Your task to perform on an android device: turn pop-ups on in chrome Image 0: 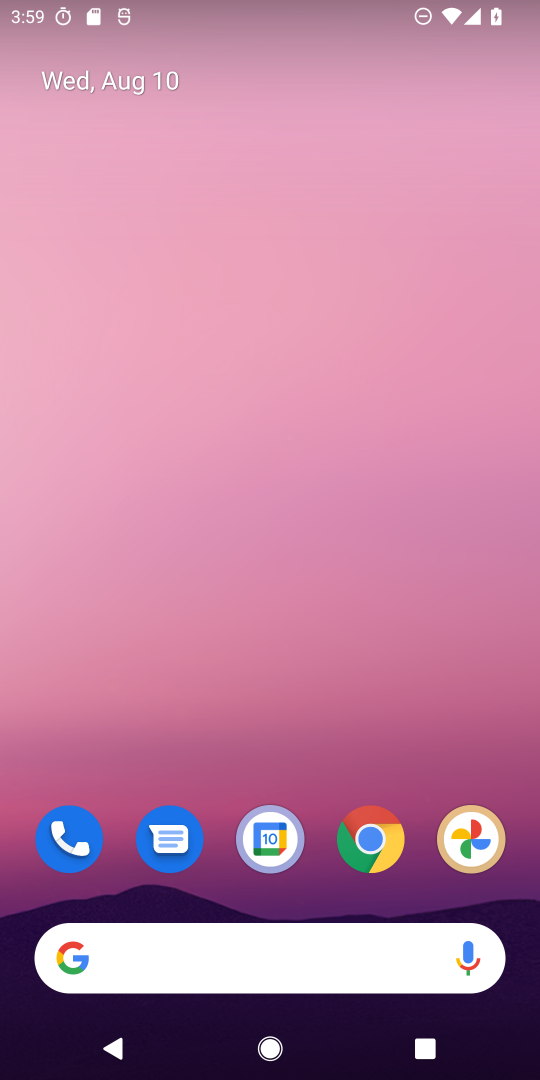
Step 0: click (379, 833)
Your task to perform on an android device: turn pop-ups on in chrome Image 1: 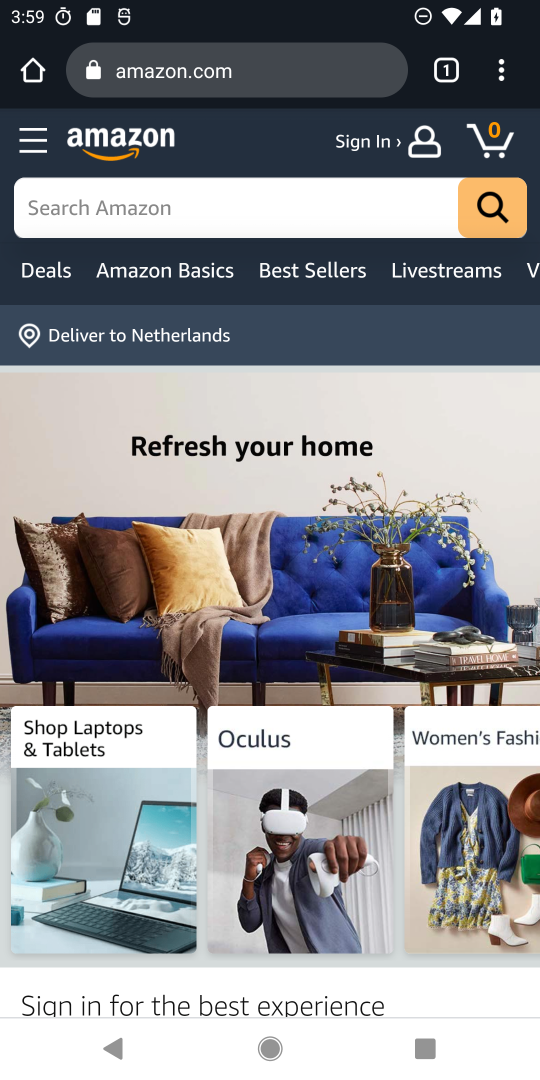
Step 1: click (511, 78)
Your task to perform on an android device: turn pop-ups on in chrome Image 2: 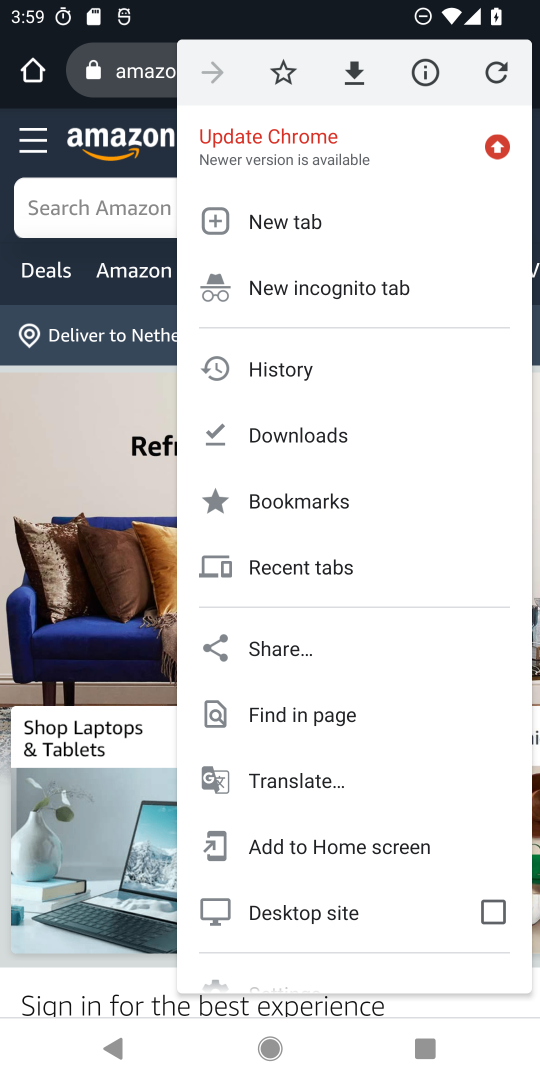
Step 2: drag from (473, 722) to (475, 347)
Your task to perform on an android device: turn pop-ups on in chrome Image 3: 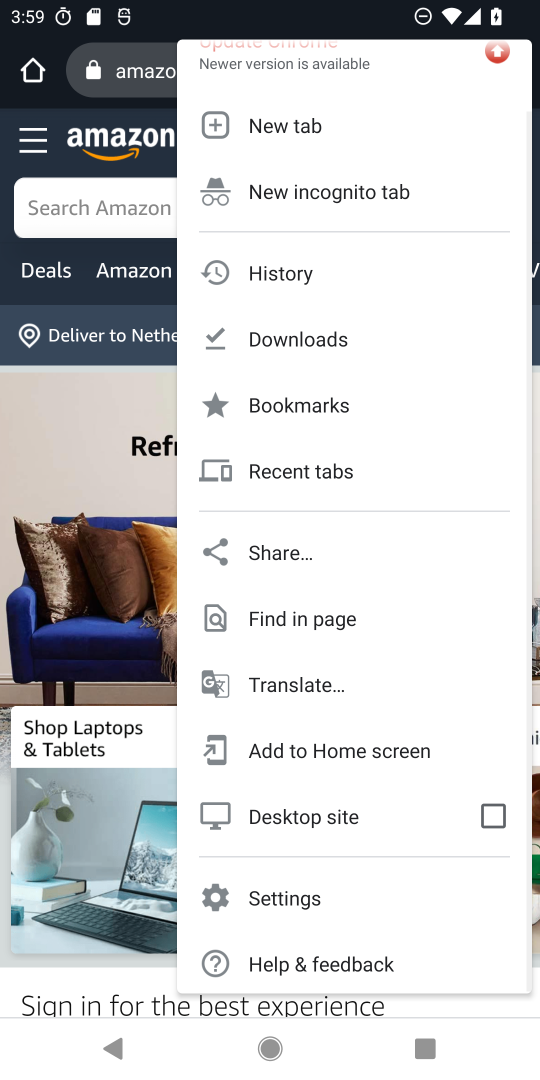
Step 3: click (261, 904)
Your task to perform on an android device: turn pop-ups on in chrome Image 4: 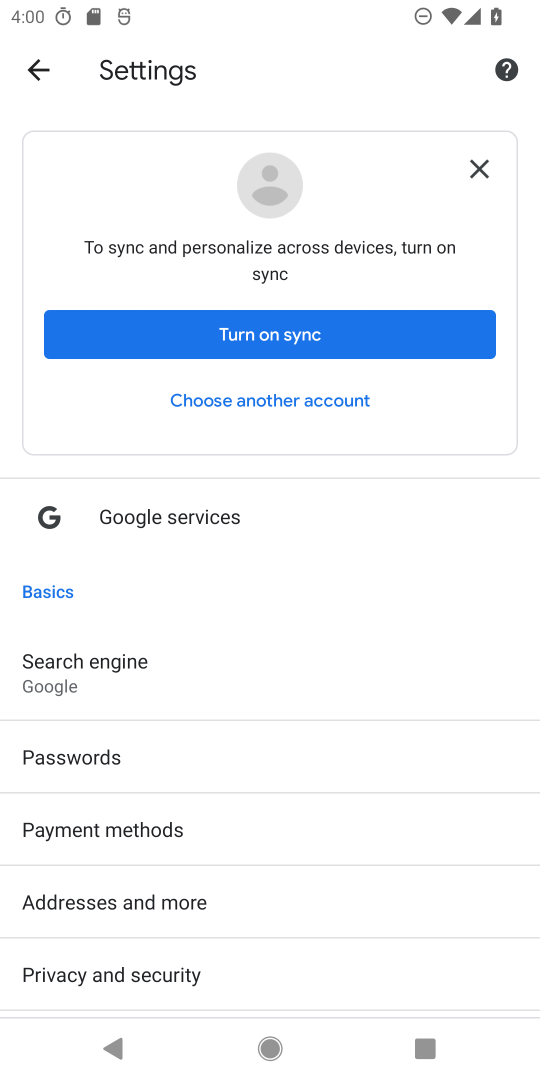
Step 4: drag from (368, 955) to (388, 575)
Your task to perform on an android device: turn pop-ups on in chrome Image 5: 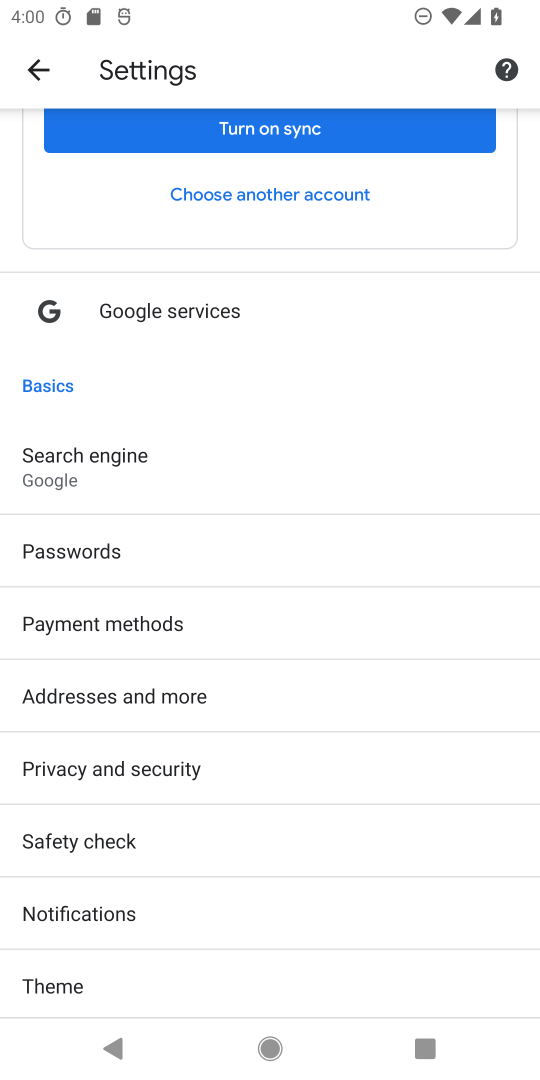
Step 5: drag from (285, 960) to (332, 795)
Your task to perform on an android device: turn pop-ups on in chrome Image 6: 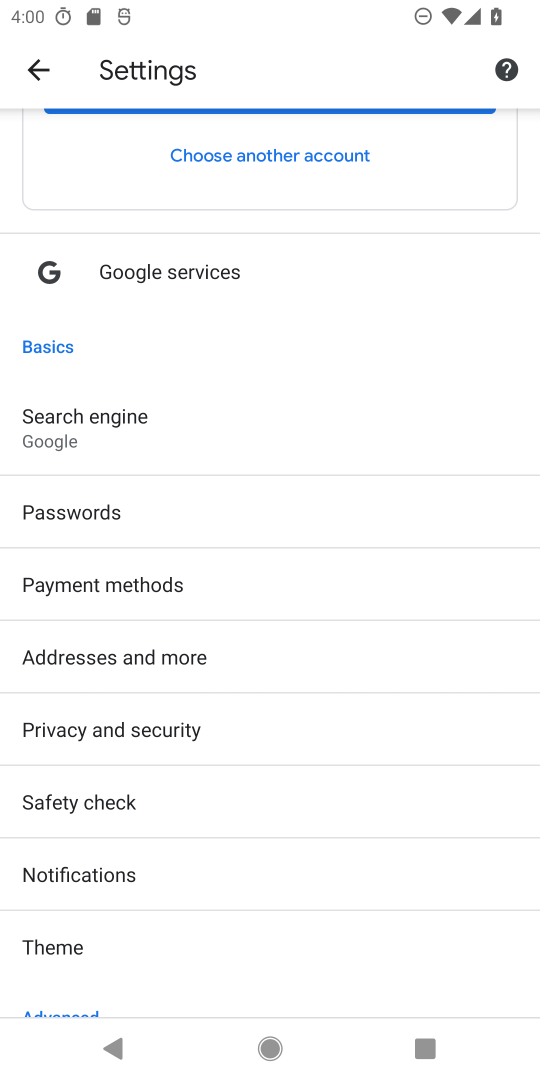
Step 6: drag from (305, 978) to (318, 586)
Your task to perform on an android device: turn pop-ups on in chrome Image 7: 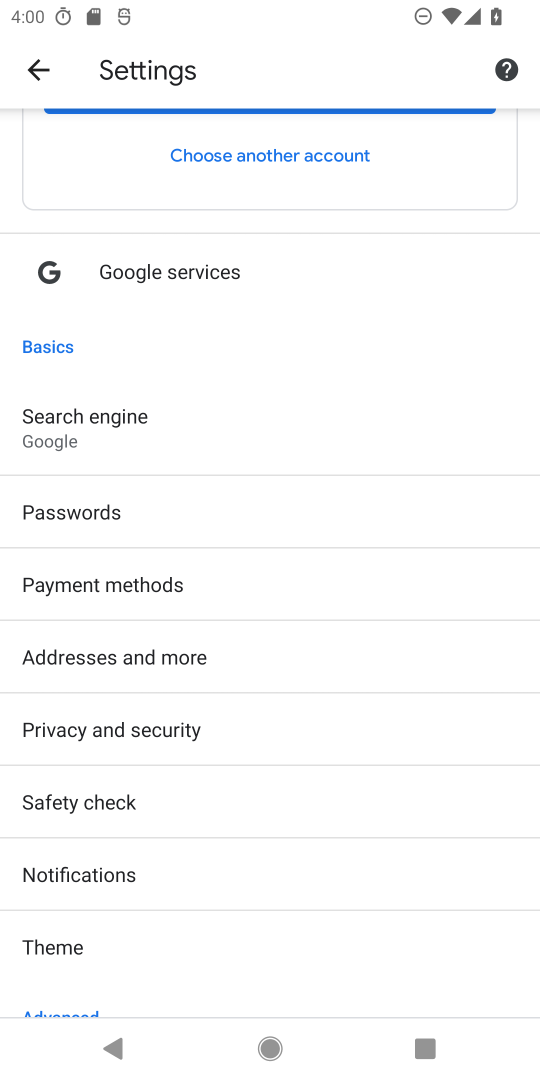
Step 7: drag from (463, 995) to (383, 605)
Your task to perform on an android device: turn pop-ups on in chrome Image 8: 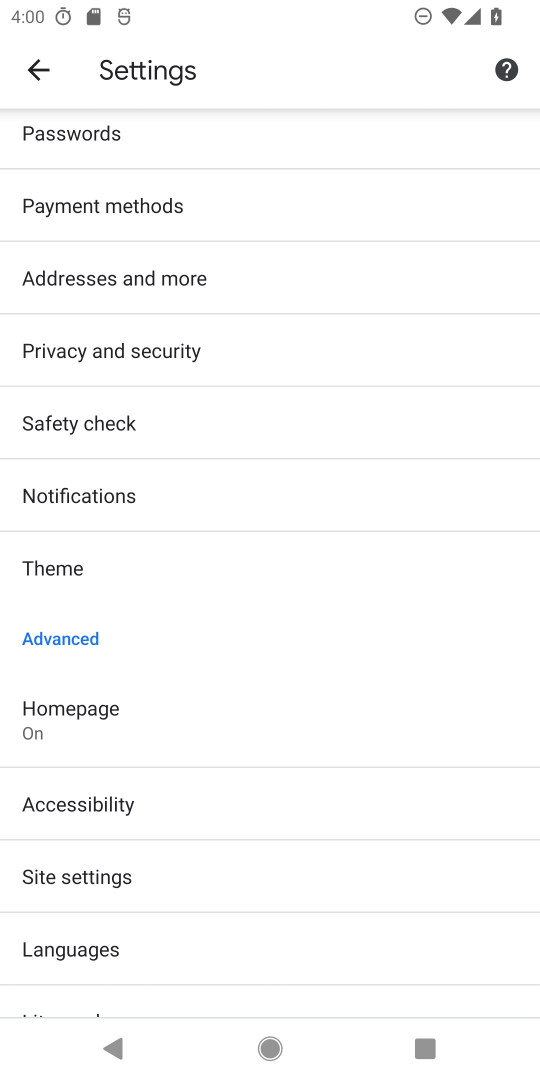
Step 8: click (47, 875)
Your task to perform on an android device: turn pop-ups on in chrome Image 9: 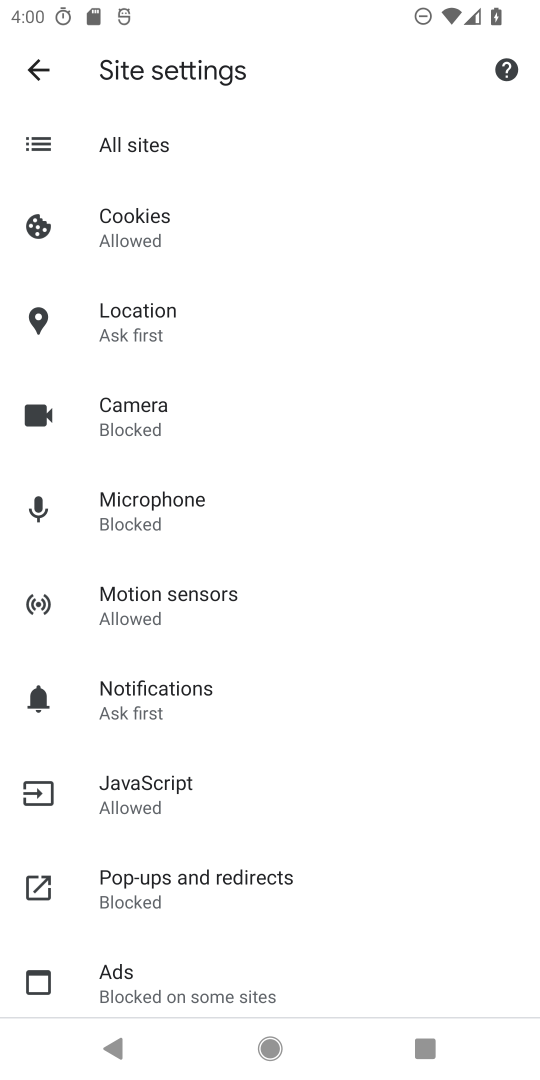
Step 9: click (187, 890)
Your task to perform on an android device: turn pop-ups on in chrome Image 10: 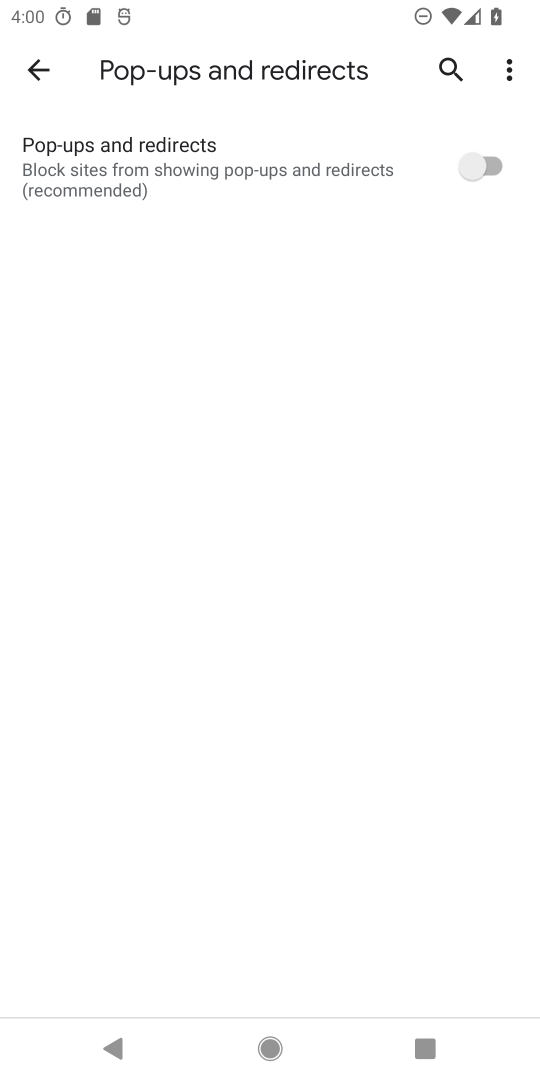
Step 10: click (470, 164)
Your task to perform on an android device: turn pop-ups on in chrome Image 11: 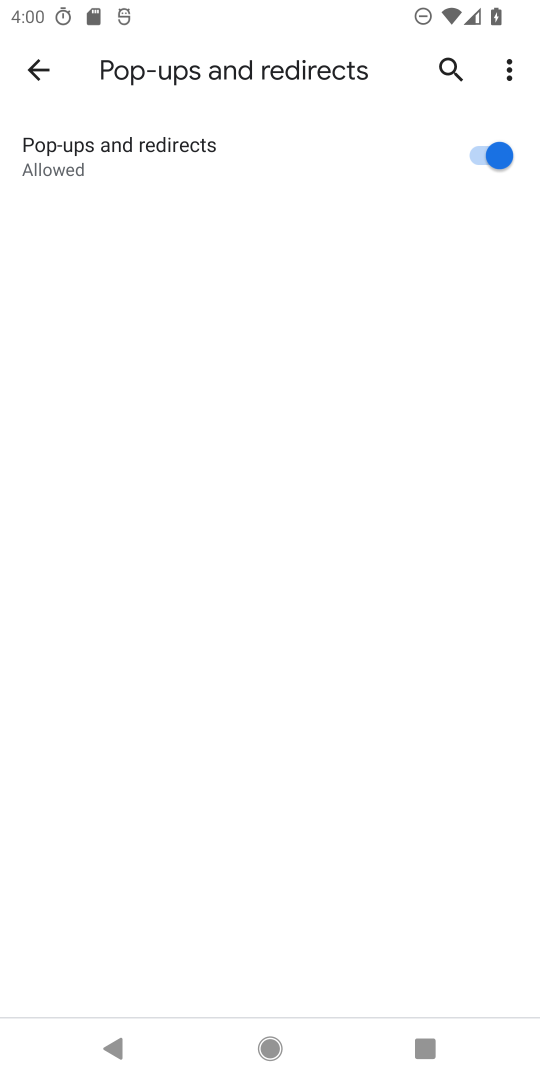
Step 11: task complete